Your task to perform on an android device: Search for flights from NYC to San Diego Image 0: 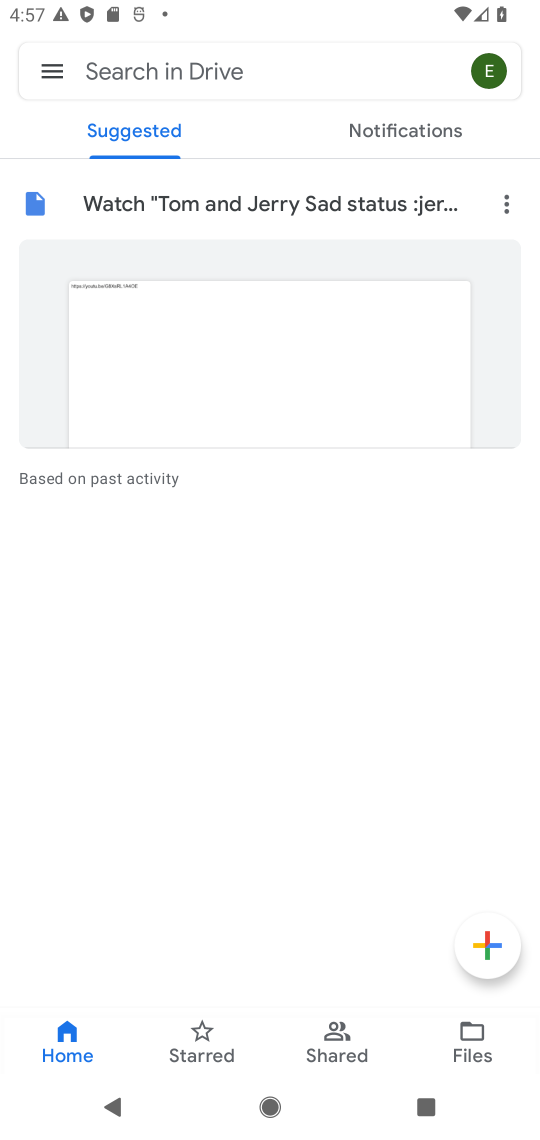
Step 0: press home button
Your task to perform on an android device: Search for flights from NYC to San Diego Image 1: 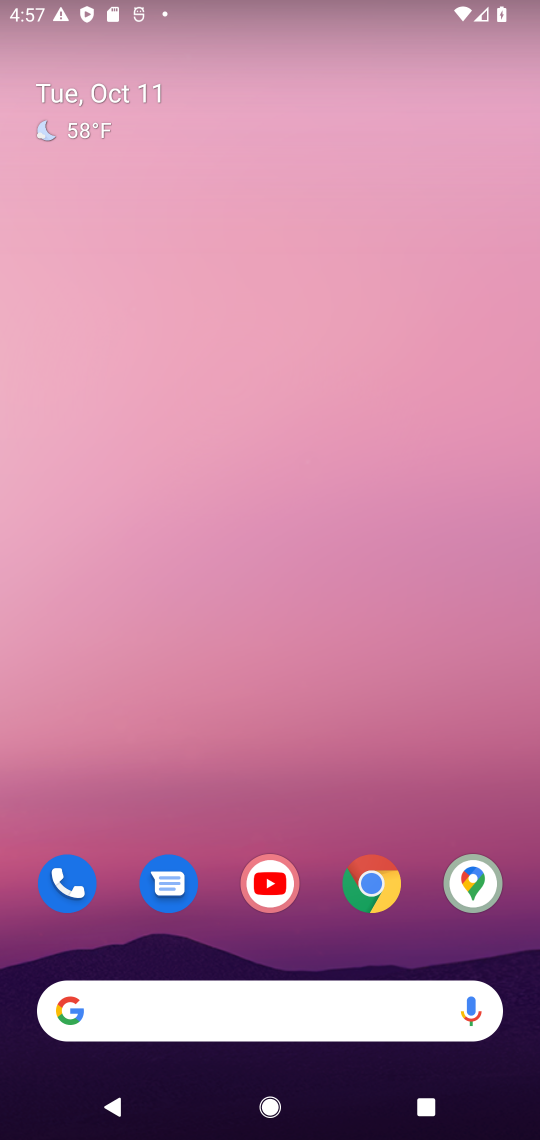
Step 1: drag from (207, 961) to (313, 192)
Your task to perform on an android device: Search for flights from NYC to San Diego Image 2: 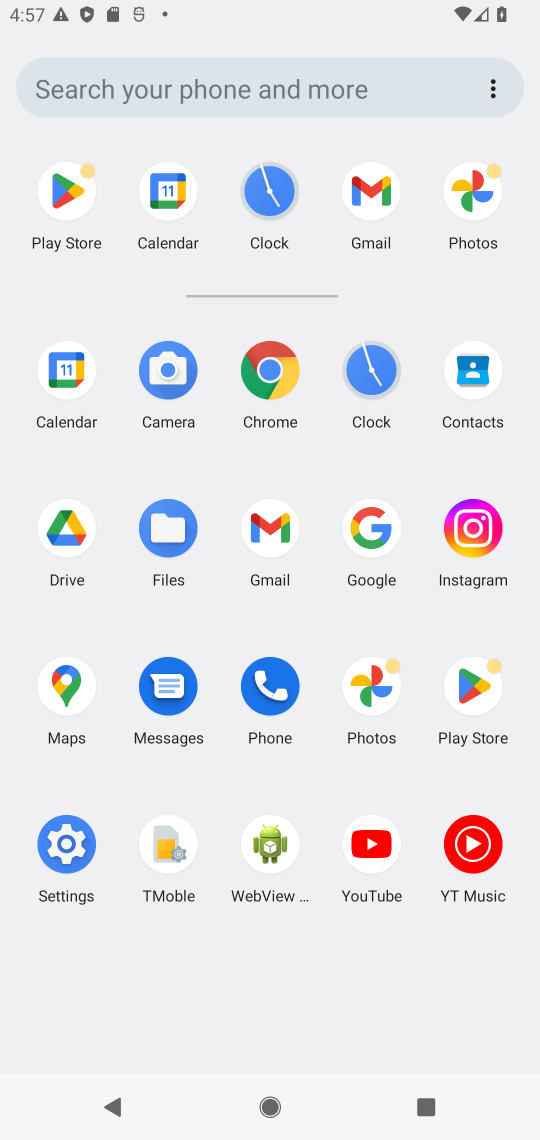
Step 2: click (259, 363)
Your task to perform on an android device: Search for flights from NYC to San Diego Image 3: 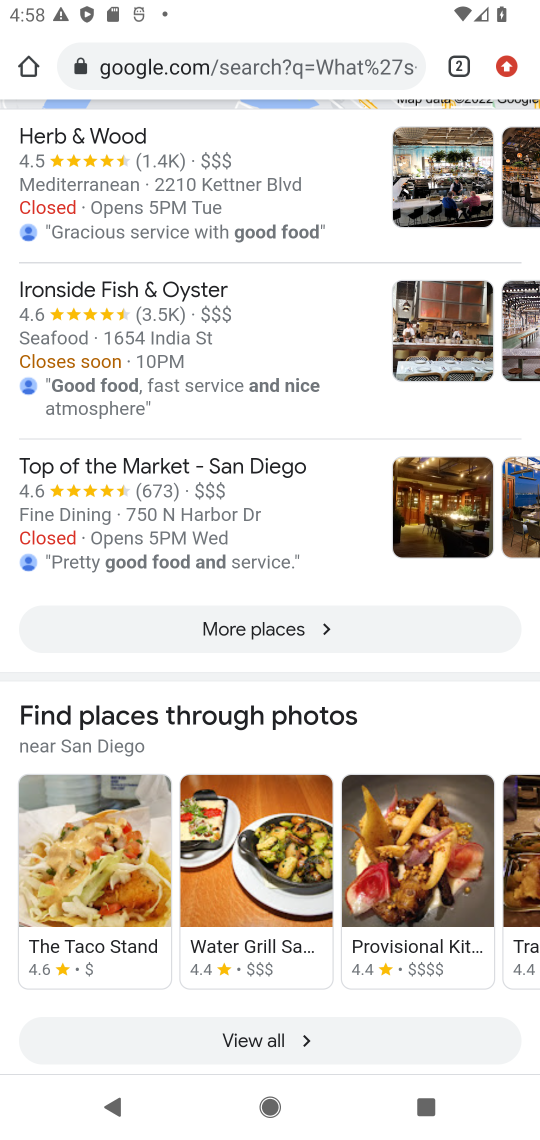
Step 3: click (334, 63)
Your task to perform on an android device: Search for flights from NYC to San Diego Image 4: 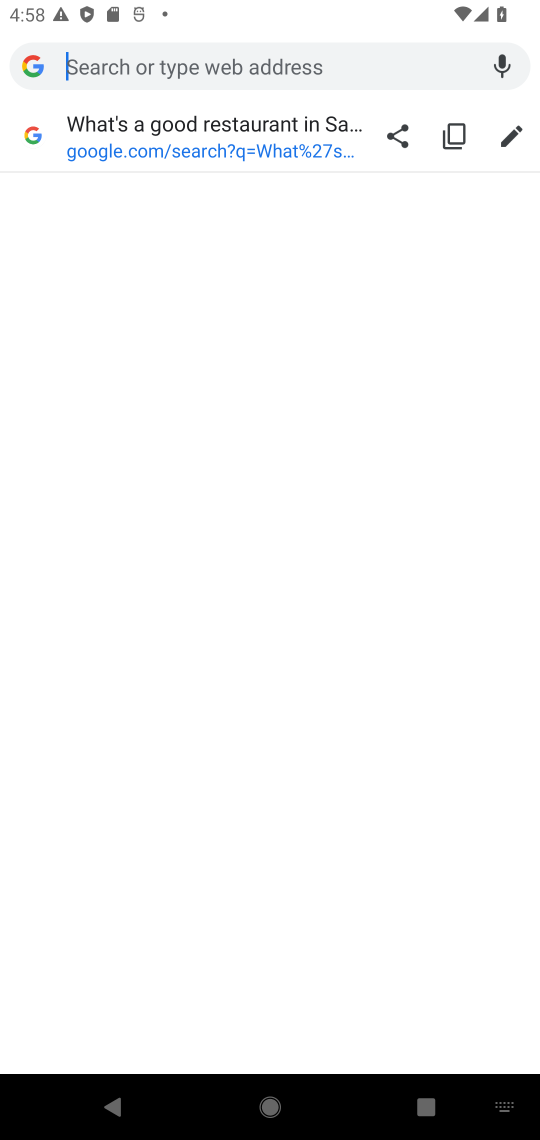
Step 4: type "flights from NYC to San Diego"
Your task to perform on an android device: Search for flights from NYC to San Diego Image 5: 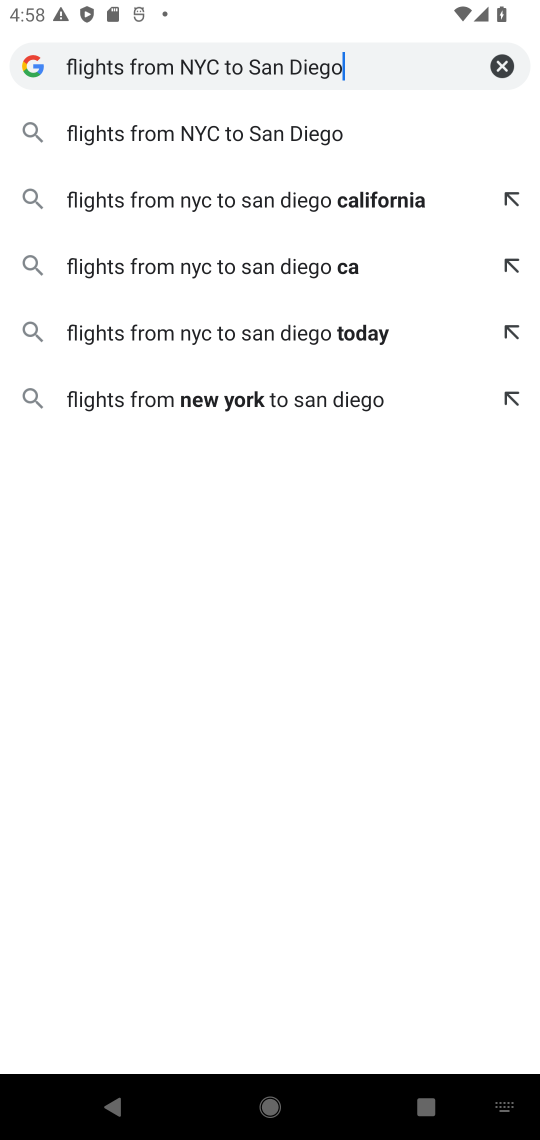
Step 5: press enter
Your task to perform on an android device: Search for flights from NYC to San Diego Image 6: 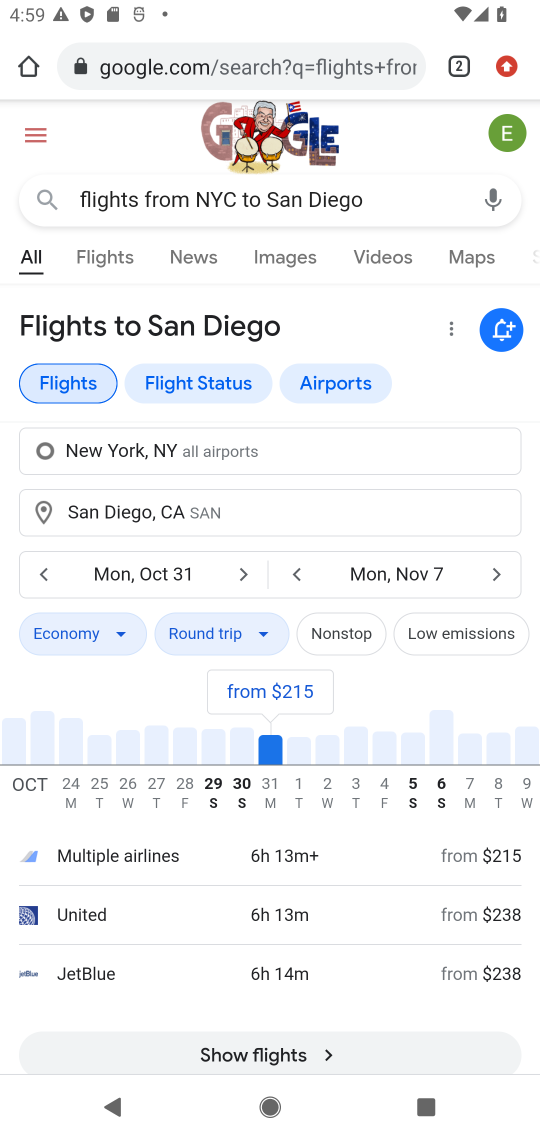
Step 6: task complete